Your task to perform on an android device: check storage Image 0: 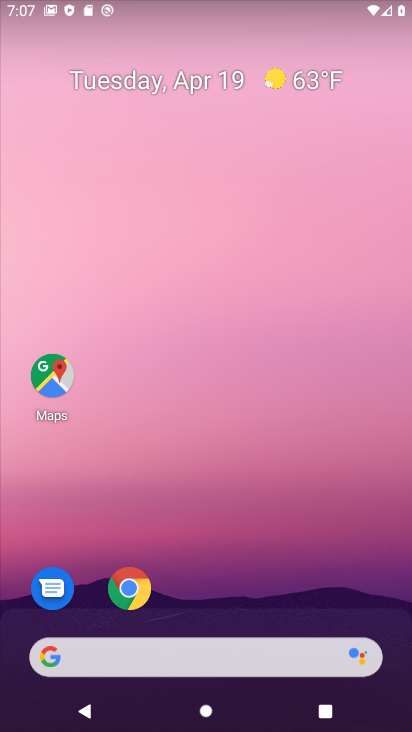
Step 0: drag from (250, 490) to (223, 49)
Your task to perform on an android device: check storage Image 1: 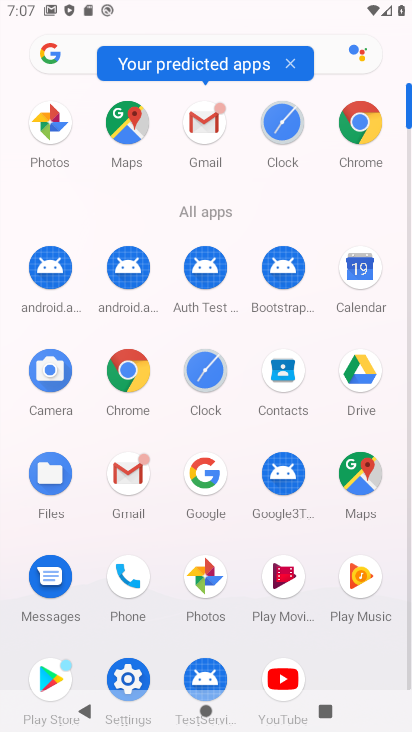
Step 1: click (138, 670)
Your task to perform on an android device: check storage Image 2: 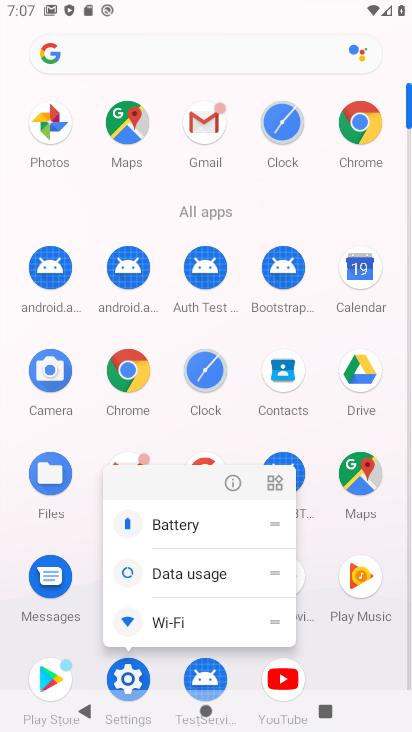
Step 2: click (130, 674)
Your task to perform on an android device: check storage Image 3: 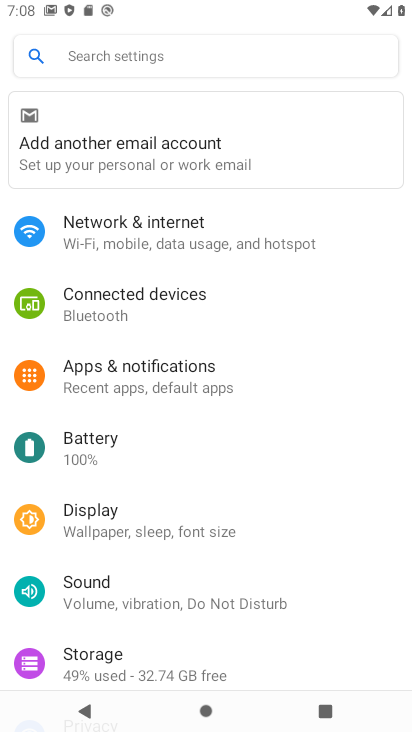
Step 3: click (103, 656)
Your task to perform on an android device: check storage Image 4: 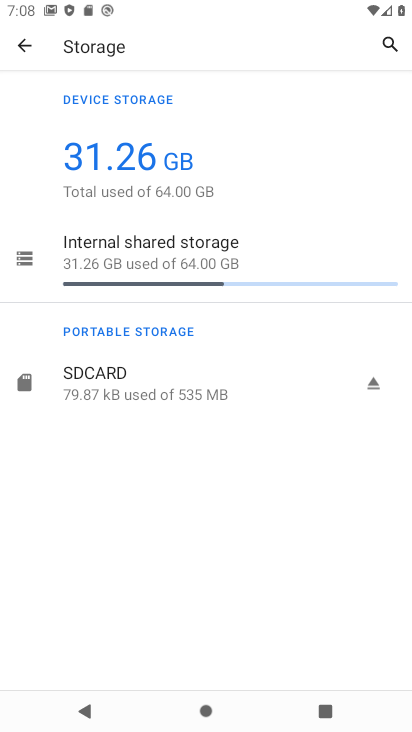
Step 4: task complete